Your task to perform on an android device: clear all cookies in the chrome app Image 0: 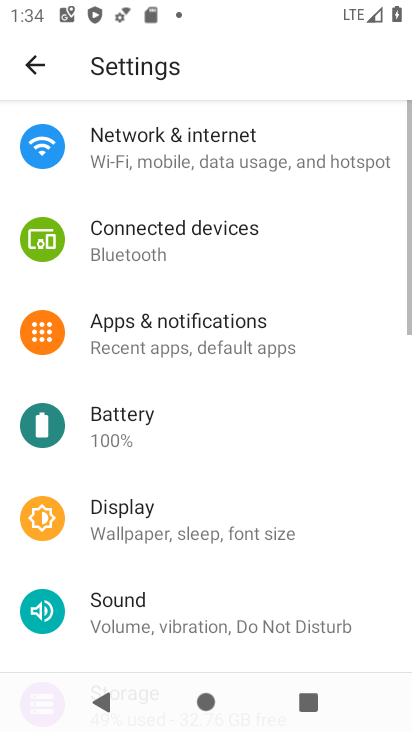
Step 0: press home button
Your task to perform on an android device: clear all cookies in the chrome app Image 1: 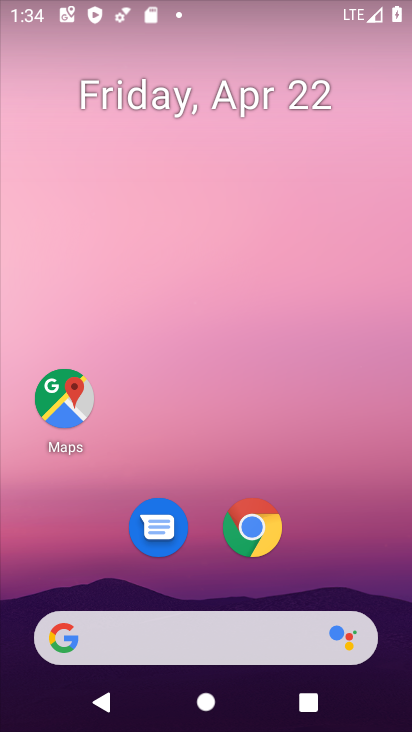
Step 1: click (259, 537)
Your task to perform on an android device: clear all cookies in the chrome app Image 2: 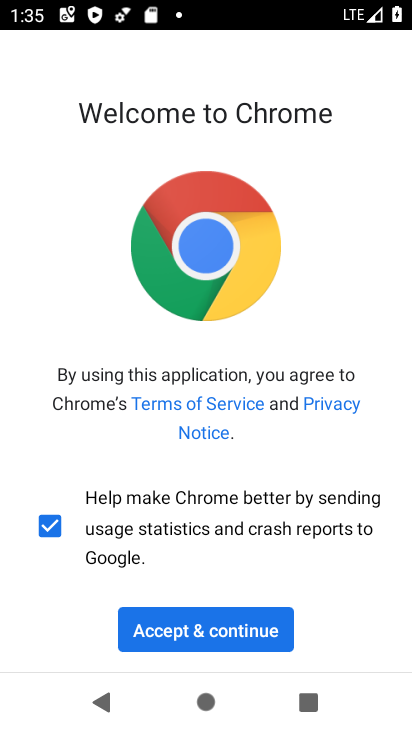
Step 2: click (260, 629)
Your task to perform on an android device: clear all cookies in the chrome app Image 3: 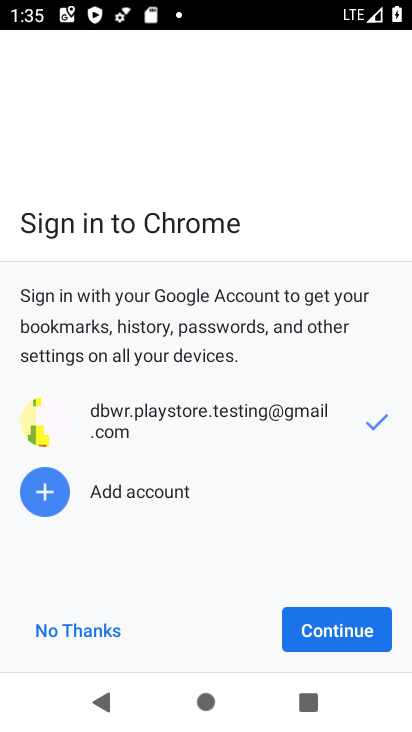
Step 3: click (344, 629)
Your task to perform on an android device: clear all cookies in the chrome app Image 4: 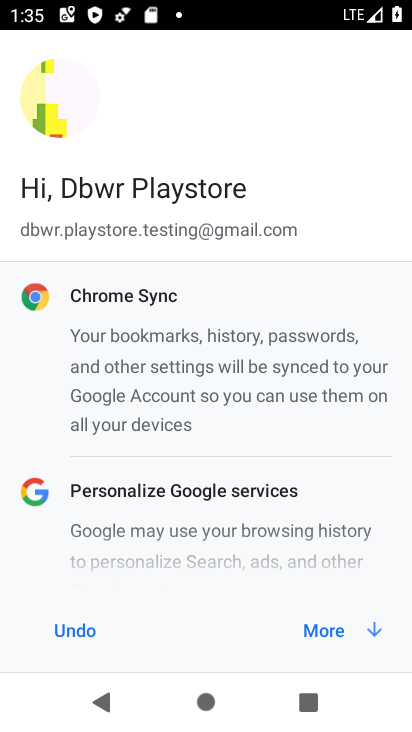
Step 4: click (362, 629)
Your task to perform on an android device: clear all cookies in the chrome app Image 5: 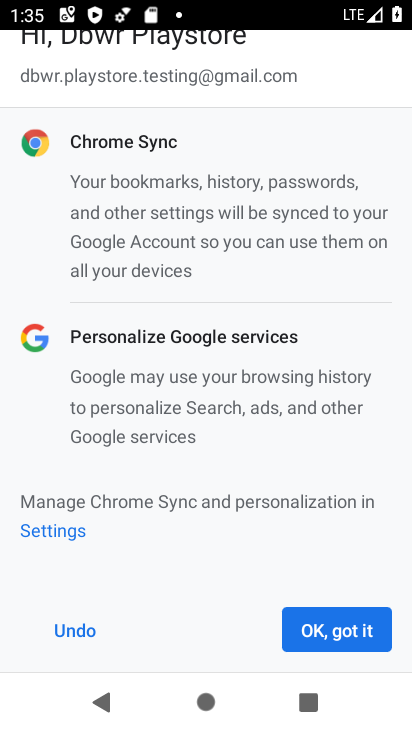
Step 5: click (351, 628)
Your task to perform on an android device: clear all cookies in the chrome app Image 6: 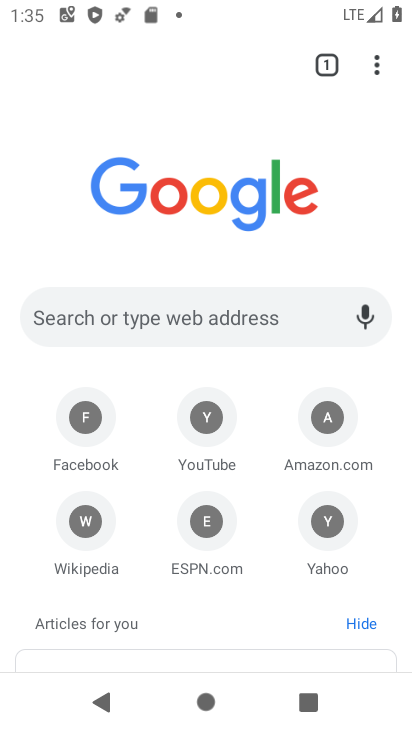
Step 6: drag from (376, 65) to (149, 367)
Your task to perform on an android device: clear all cookies in the chrome app Image 7: 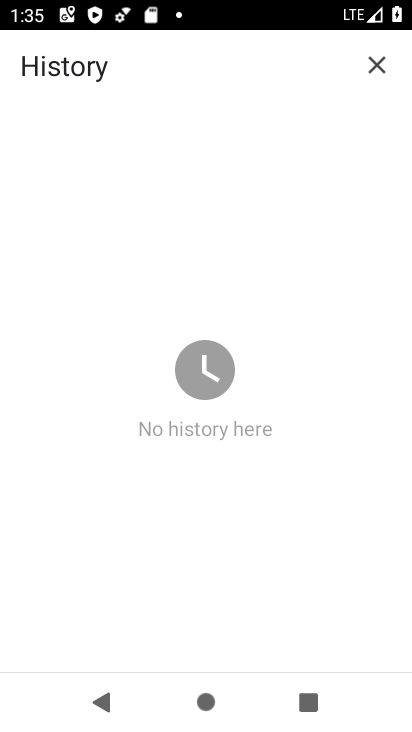
Step 7: press back button
Your task to perform on an android device: clear all cookies in the chrome app Image 8: 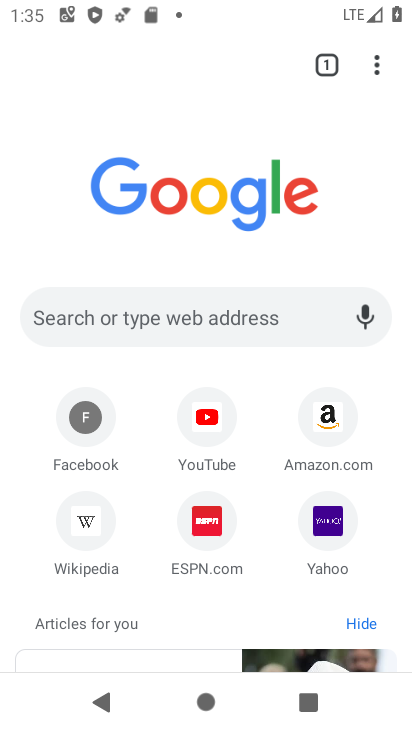
Step 8: drag from (376, 64) to (161, 543)
Your task to perform on an android device: clear all cookies in the chrome app Image 9: 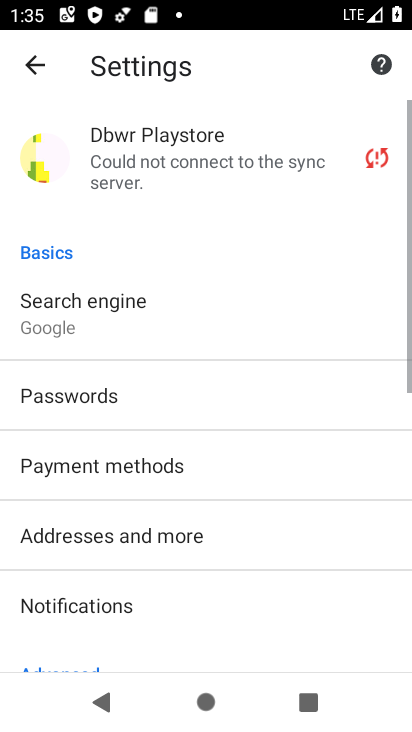
Step 9: drag from (160, 463) to (169, 244)
Your task to perform on an android device: clear all cookies in the chrome app Image 10: 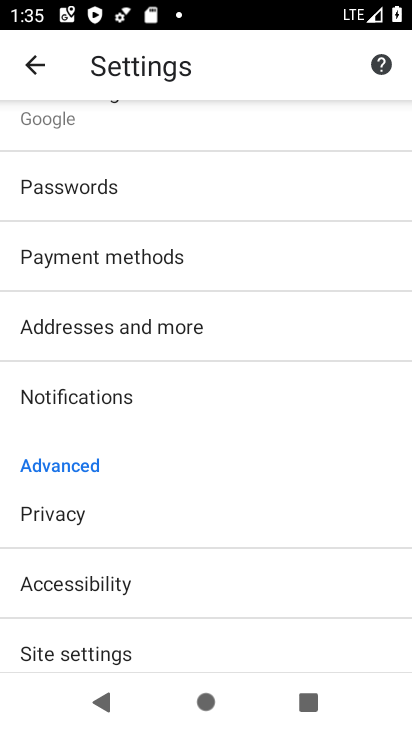
Step 10: click (65, 517)
Your task to perform on an android device: clear all cookies in the chrome app Image 11: 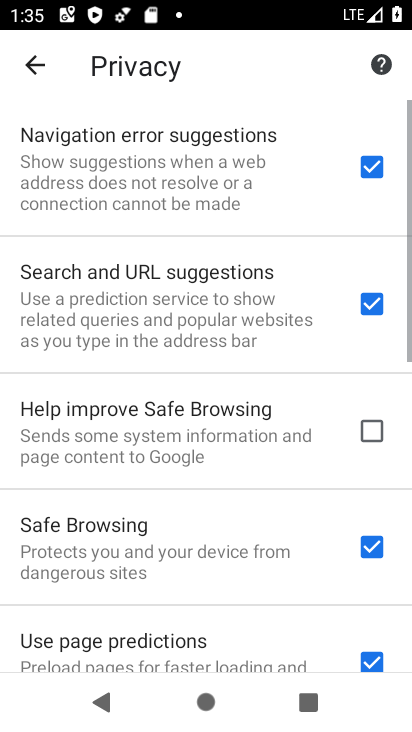
Step 11: drag from (156, 627) to (184, 126)
Your task to perform on an android device: clear all cookies in the chrome app Image 12: 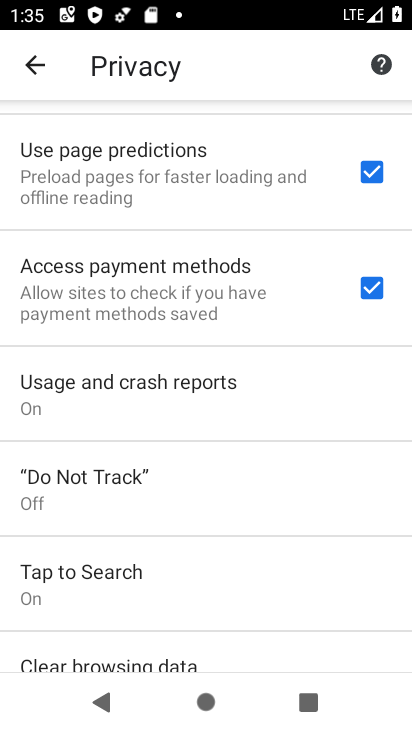
Step 12: drag from (149, 566) to (153, 193)
Your task to perform on an android device: clear all cookies in the chrome app Image 13: 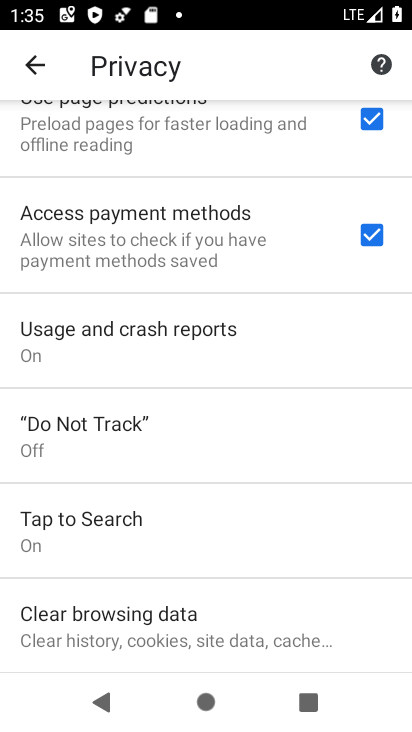
Step 13: click (113, 626)
Your task to perform on an android device: clear all cookies in the chrome app Image 14: 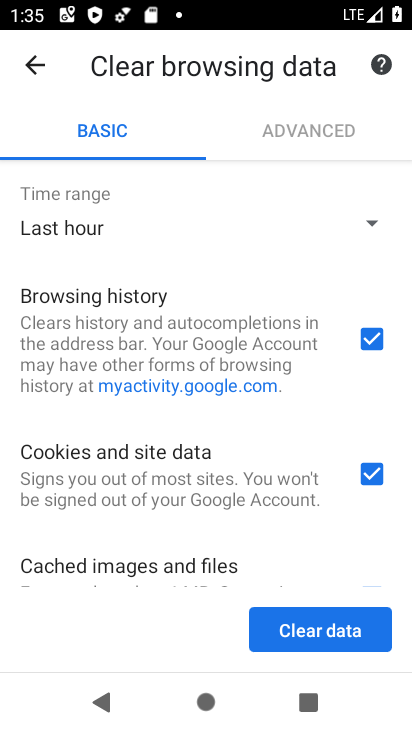
Step 14: click (336, 635)
Your task to perform on an android device: clear all cookies in the chrome app Image 15: 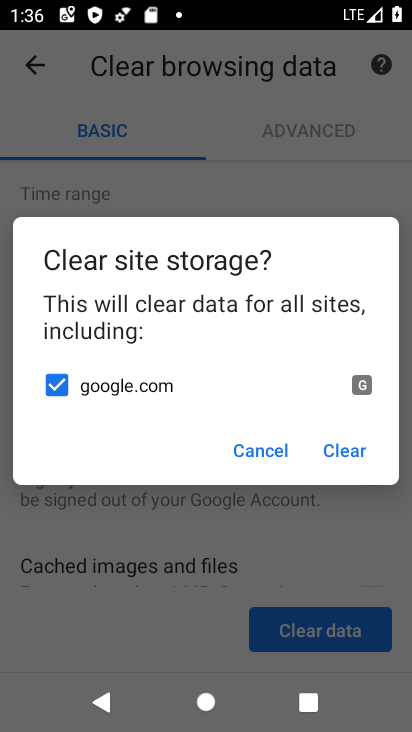
Step 15: click (345, 452)
Your task to perform on an android device: clear all cookies in the chrome app Image 16: 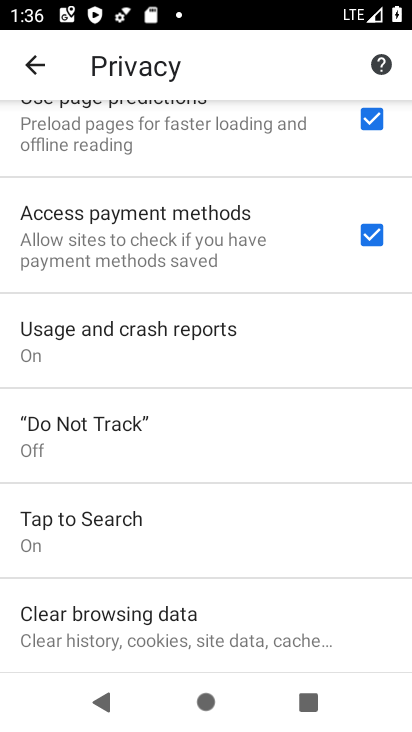
Step 16: task complete